Your task to perform on an android device: turn off javascript in the chrome app Image 0: 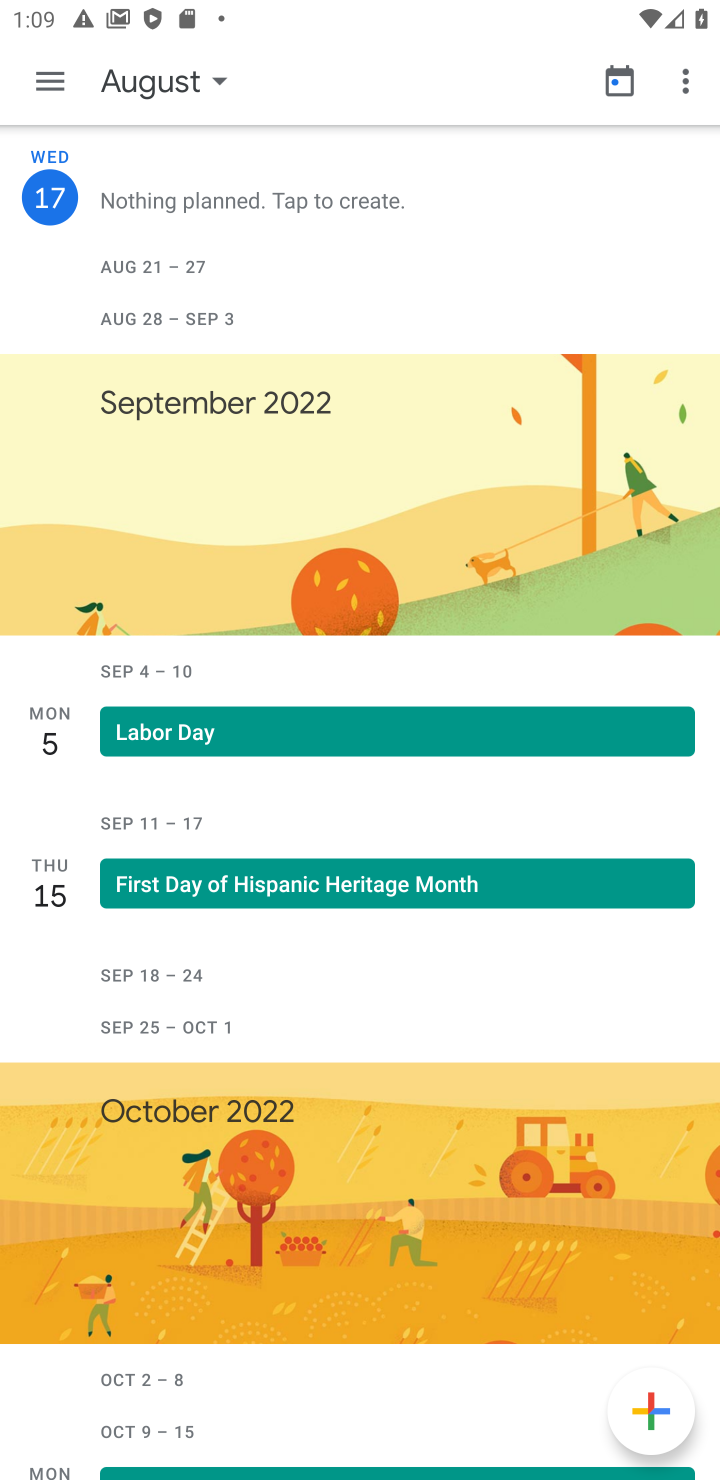
Step 0: press home button
Your task to perform on an android device: turn off javascript in the chrome app Image 1: 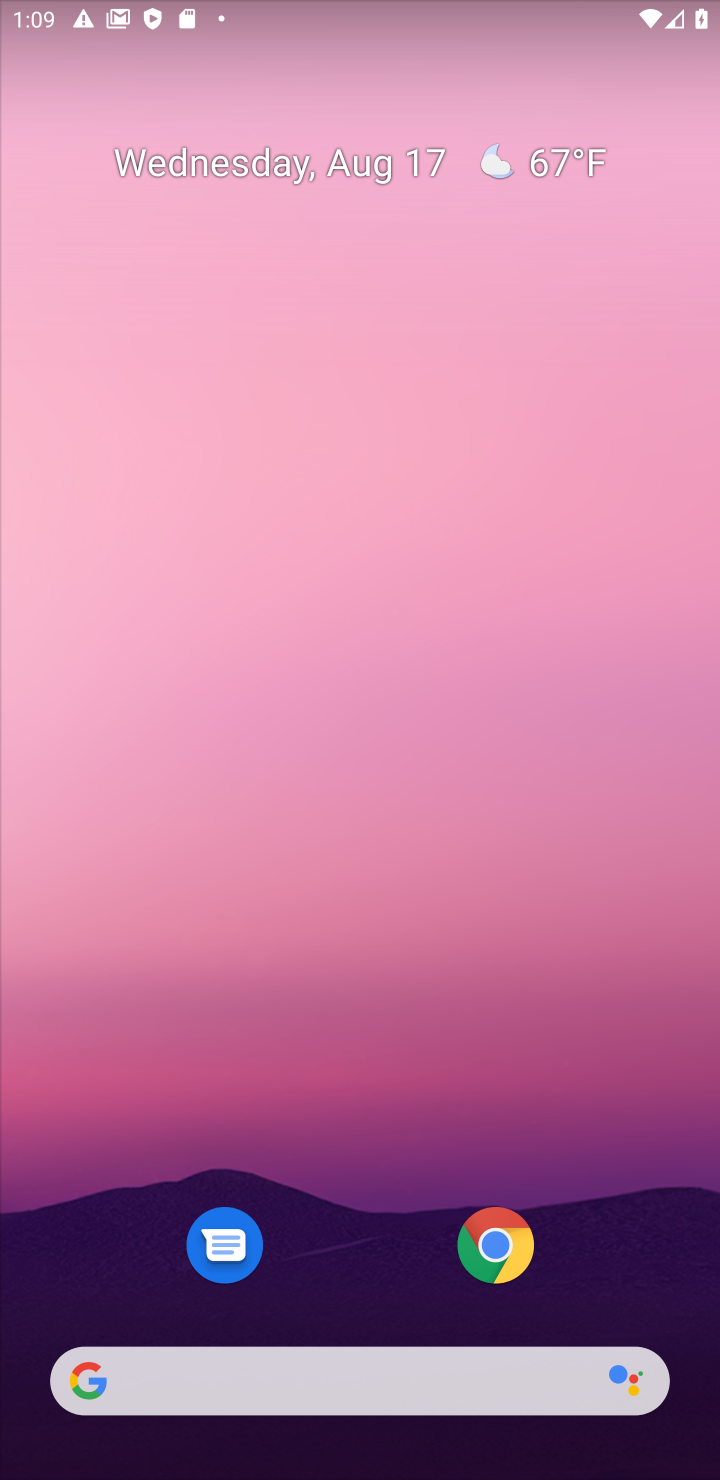
Step 1: click (494, 1264)
Your task to perform on an android device: turn off javascript in the chrome app Image 2: 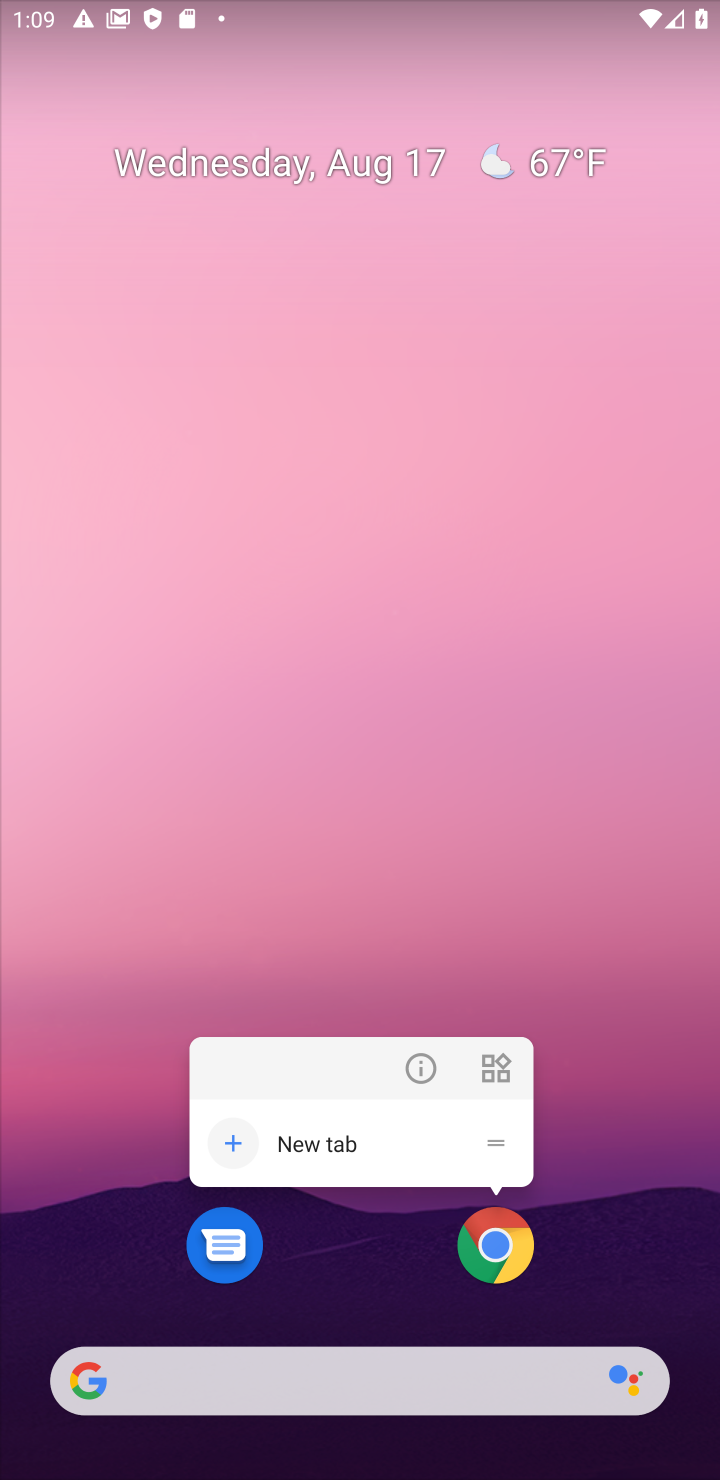
Step 2: click (493, 1251)
Your task to perform on an android device: turn off javascript in the chrome app Image 3: 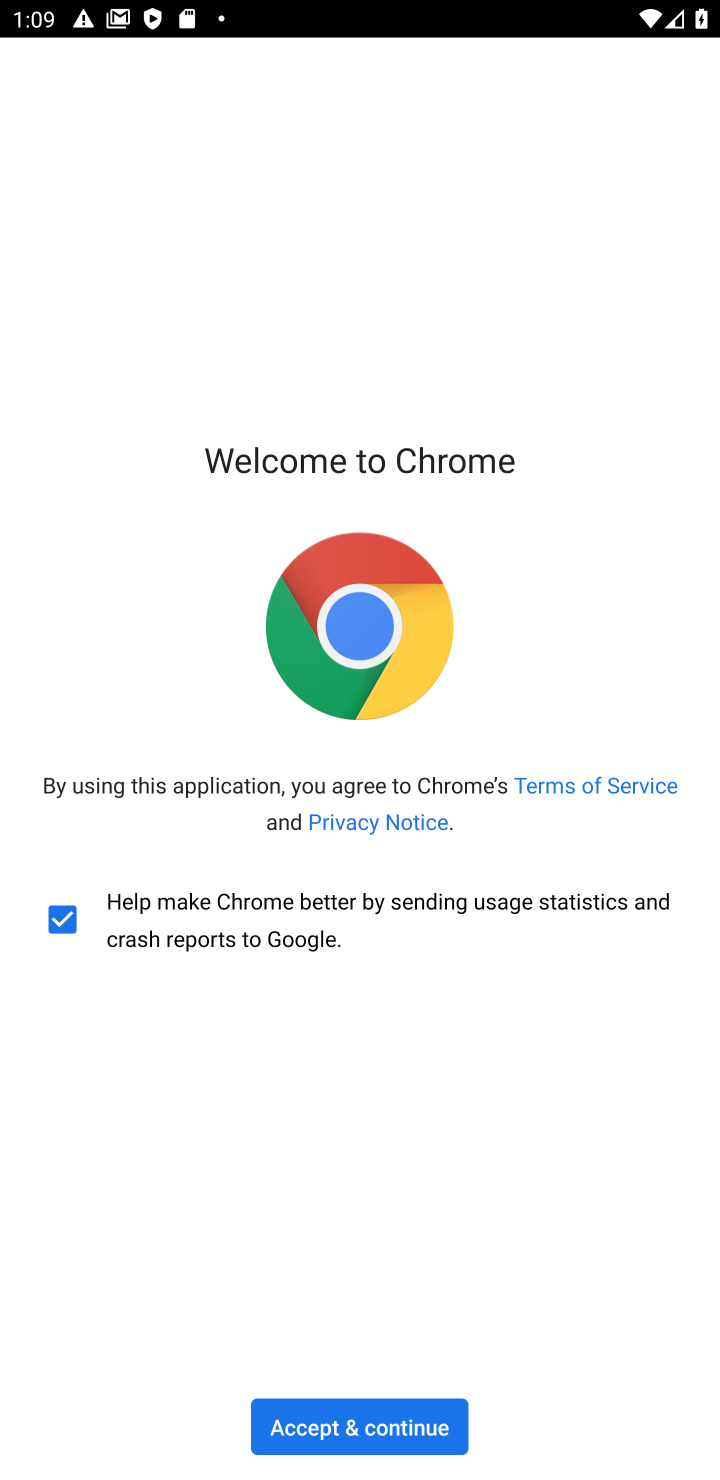
Step 3: click (362, 1436)
Your task to perform on an android device: turn off javascript in the chrome app Image 4: 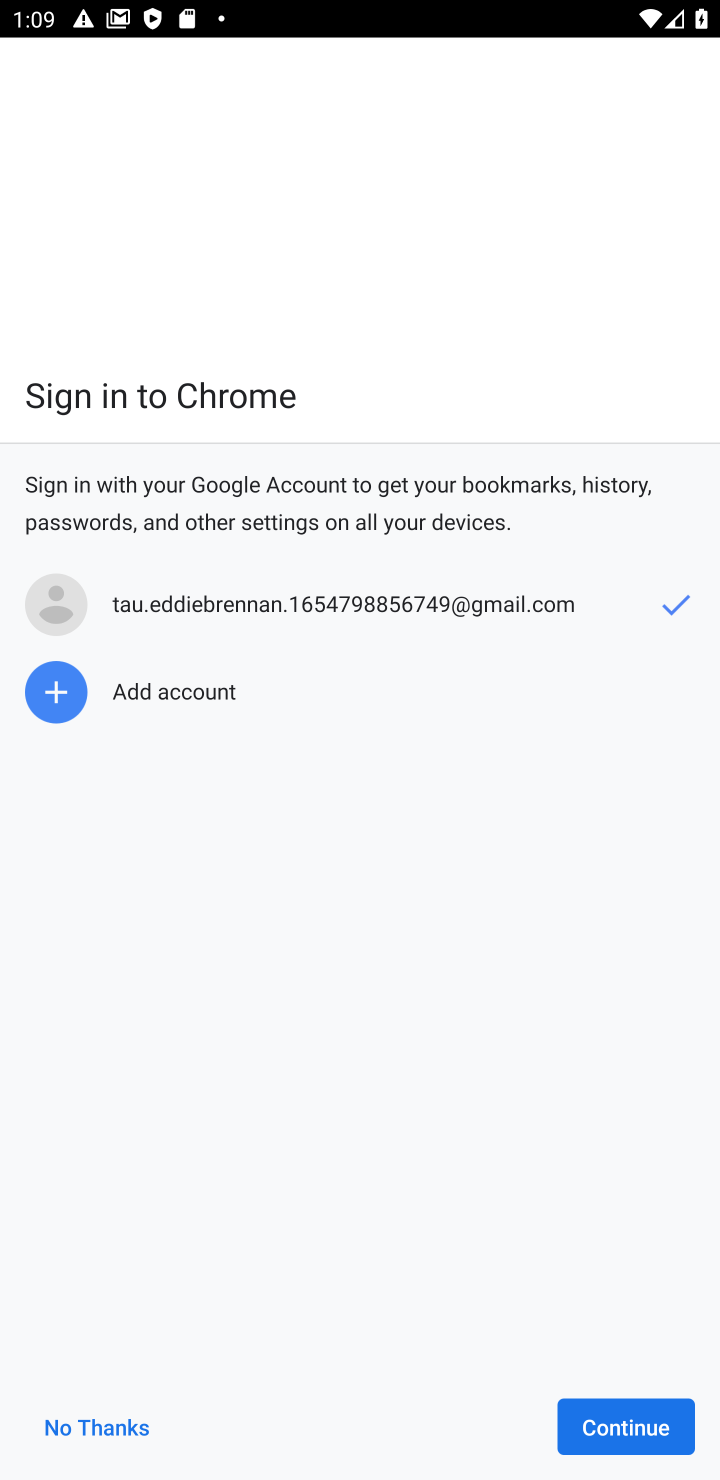
Step 4: click (613, 1431)
Your task to perform on an android device: turn off javascript in the chrome app Image 5: 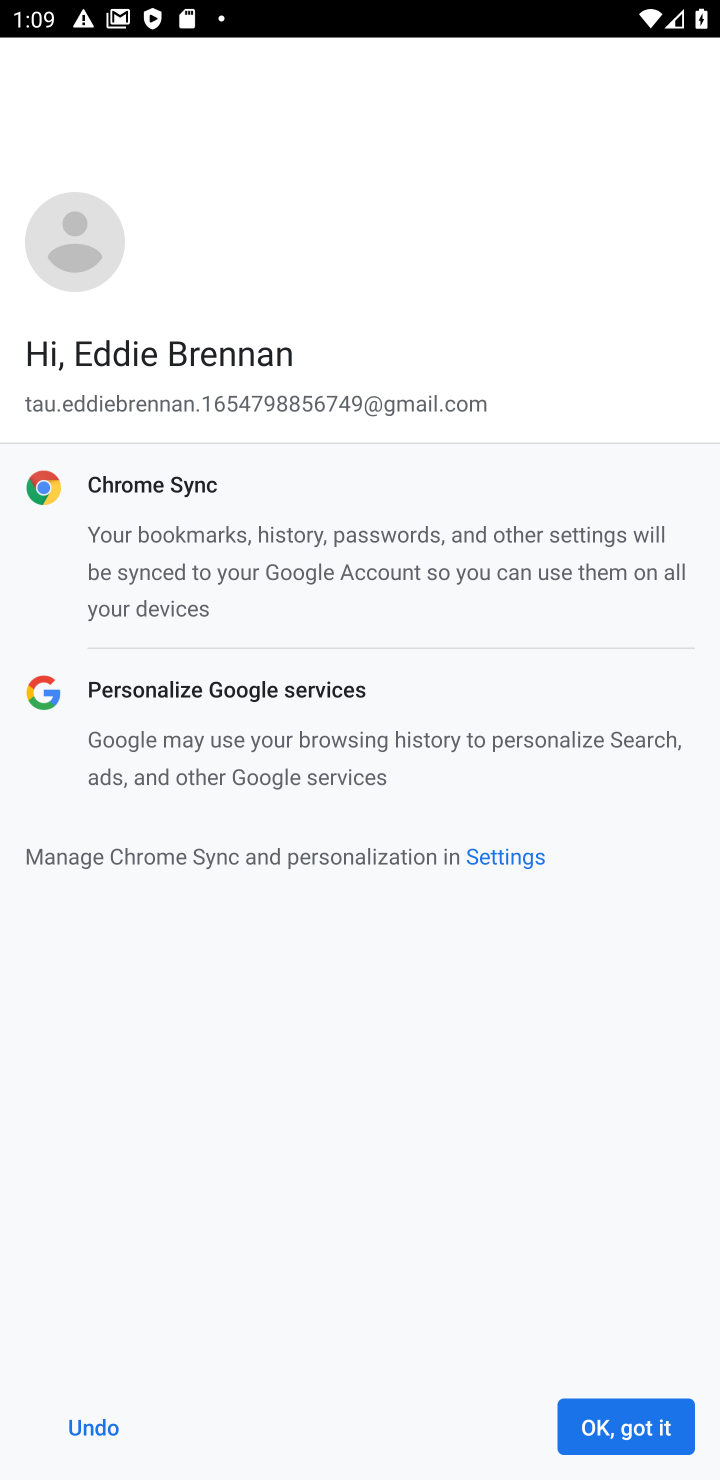
Step 5: click (613, 1431)
Your task to perform on an android device: turn off javascript in the chrome app Image 6: 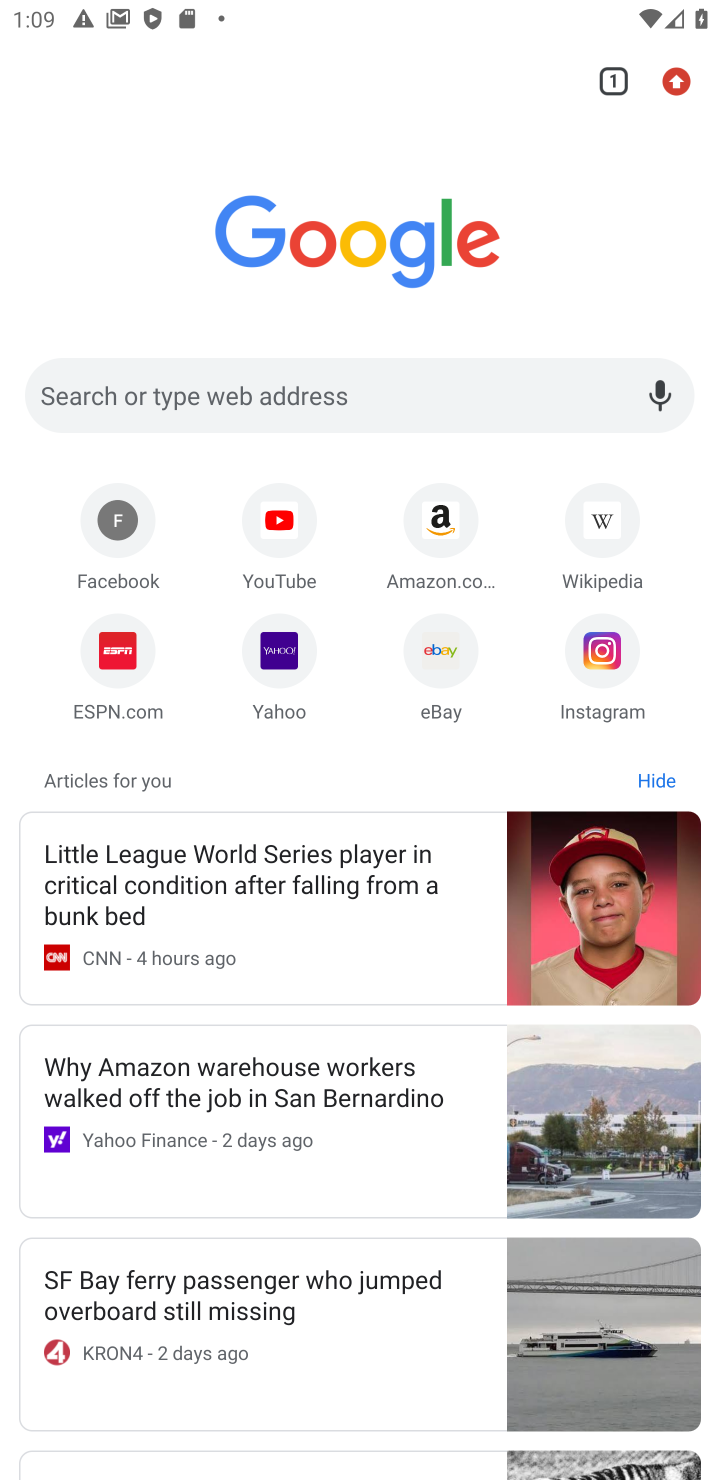
Step 6: drag from (678, 77) to (475, 768)
Your task to perform on an android device: turn off javascript in the chrome app Image 7: 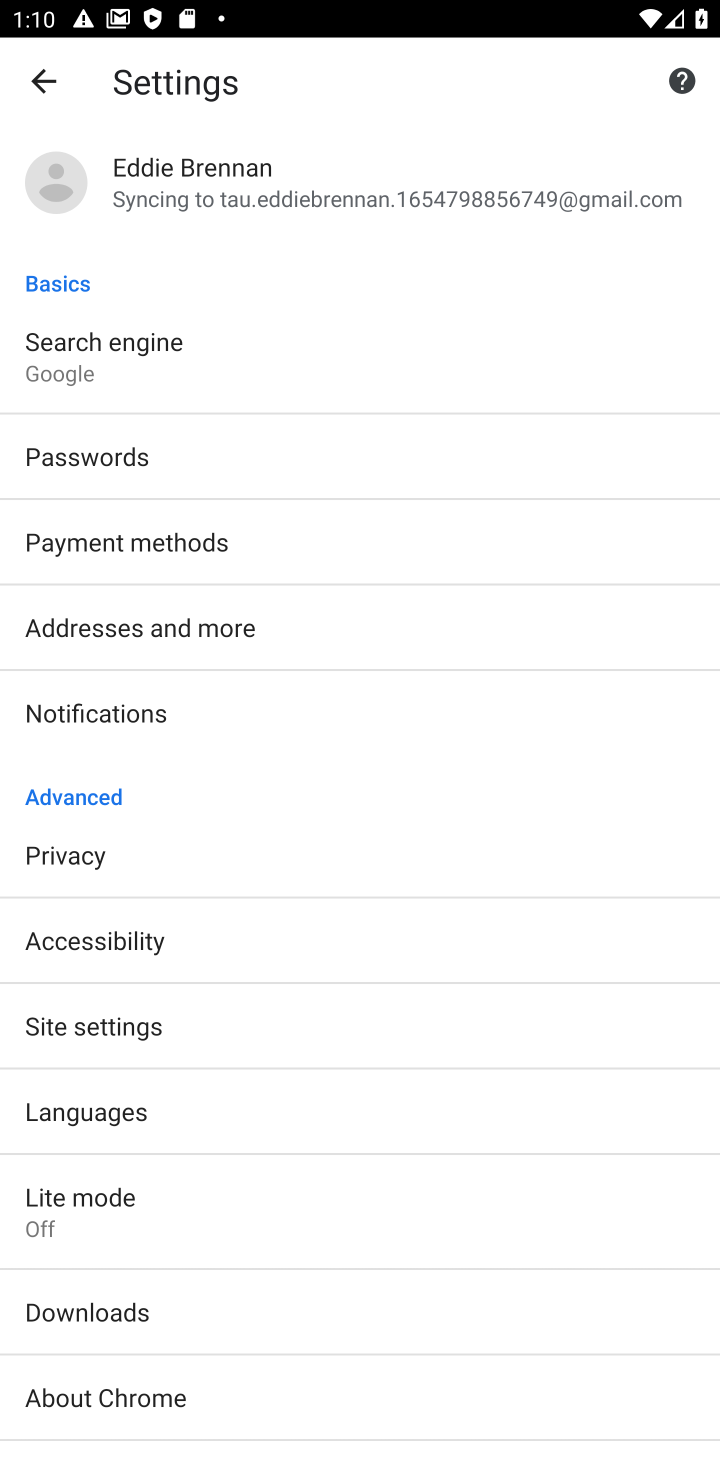
Step 7: click (112, 1026)
Your task to perform on an android device: turn off javascript in the chrome app Image 8: 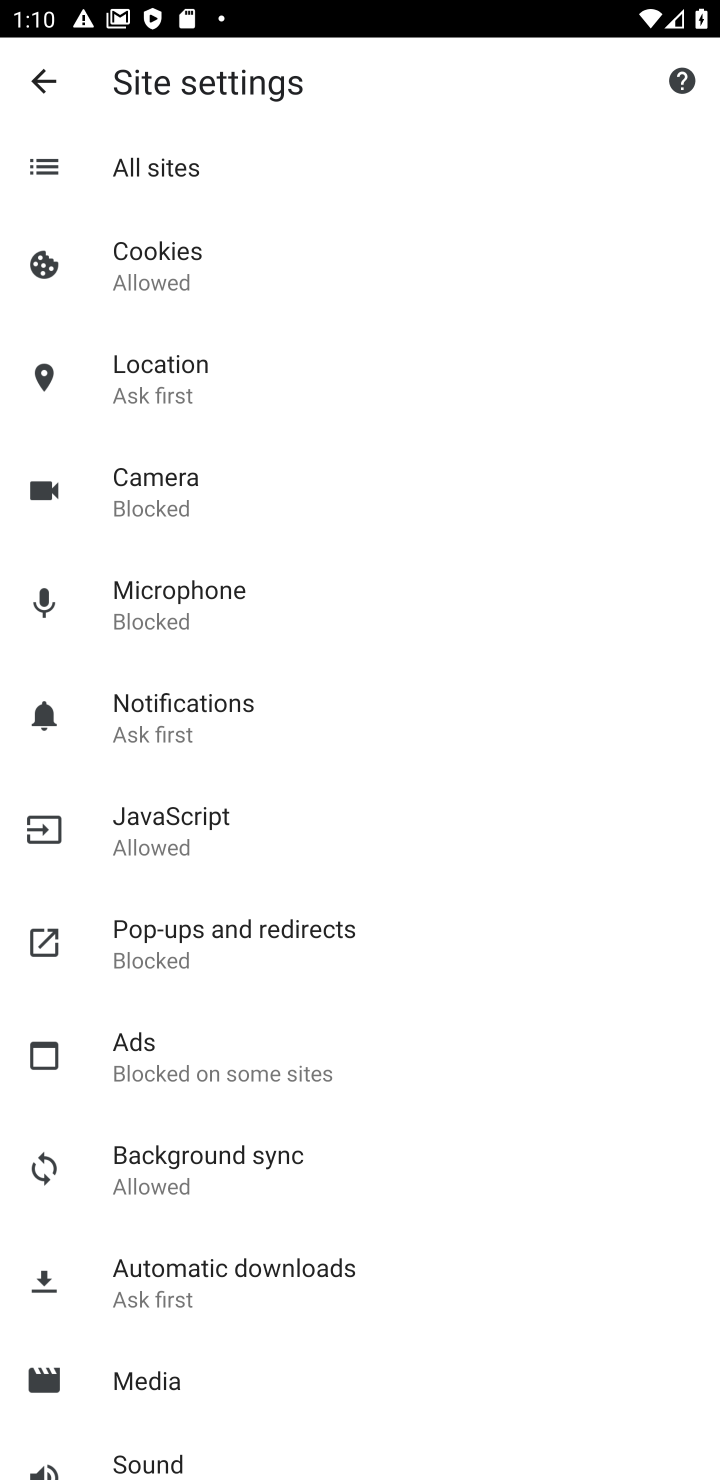
Step 8: click (166, 804)
Your task to perform on an android device: turn off javascript in the chrome app Image 9: 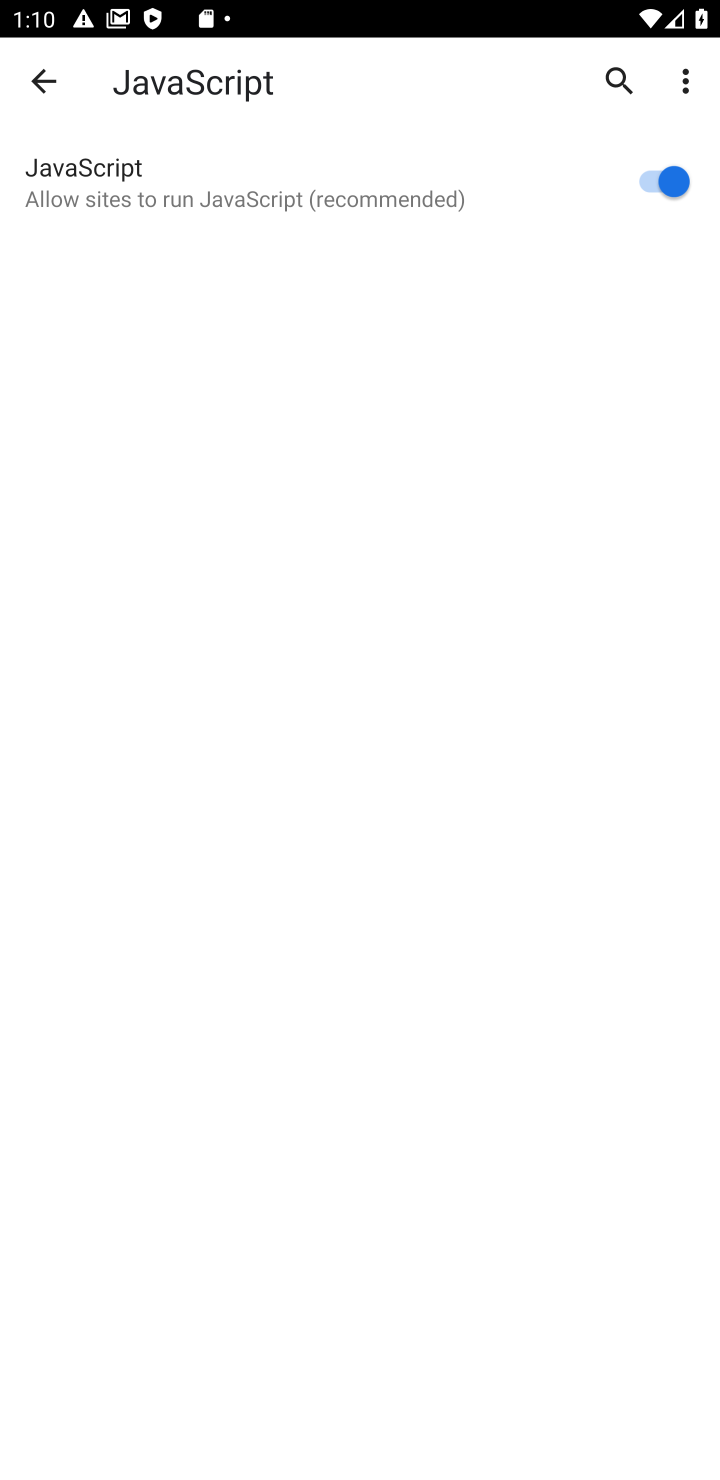
Step 9: click (674, 179)
Your task to perform on an android device: turn off javascript in the chrome app Image 10: 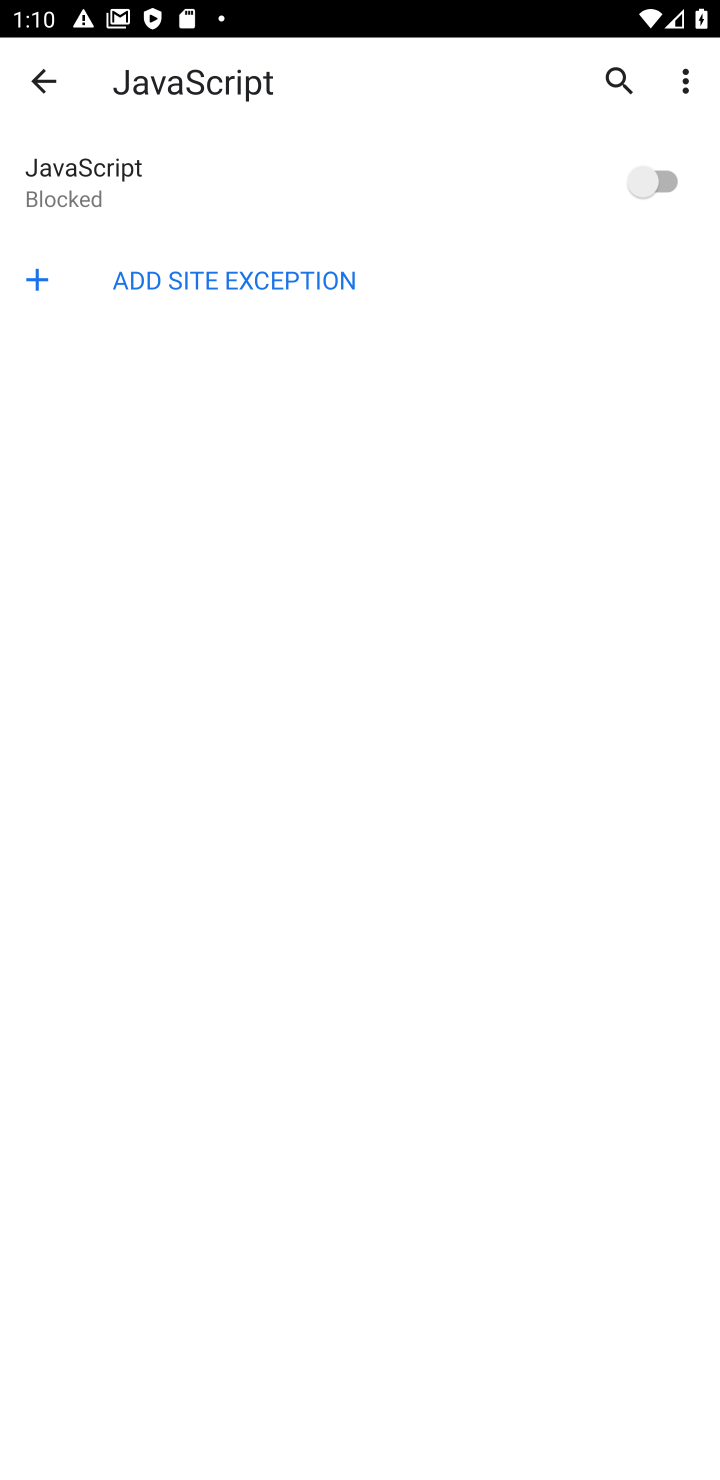
Step 10: task complete